Your task to perform on an android device: turn on javascript in the chrome app Image 0: 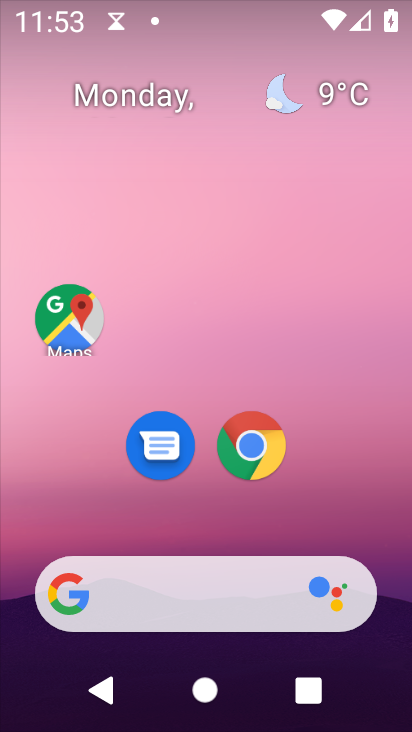
Step 0: drag from (337, 568) to (342, 0)
Your task to perform on an android device: turn on javascript in the chrome app Image 1: 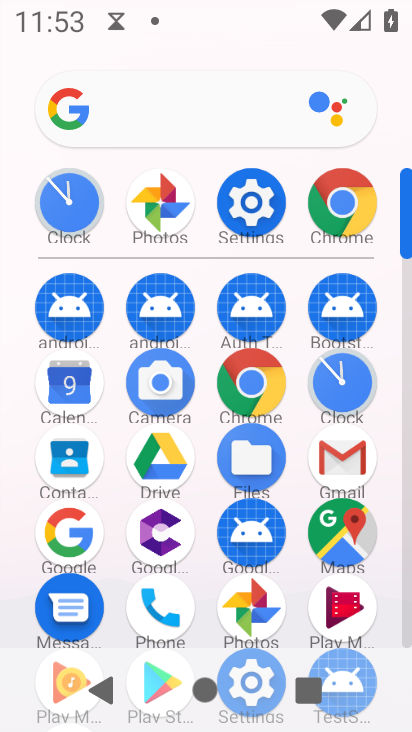
Step 1: click (251, 369)
Your task to perform on an android device: turn on javascript in the chrome app Image 2: 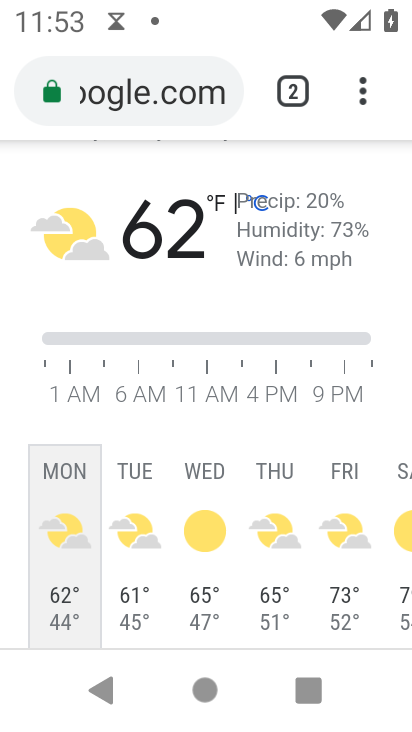
Step 2: click (373, 98)
Your task to perform on an android device: turn on javascript in the chrome app Image 3: 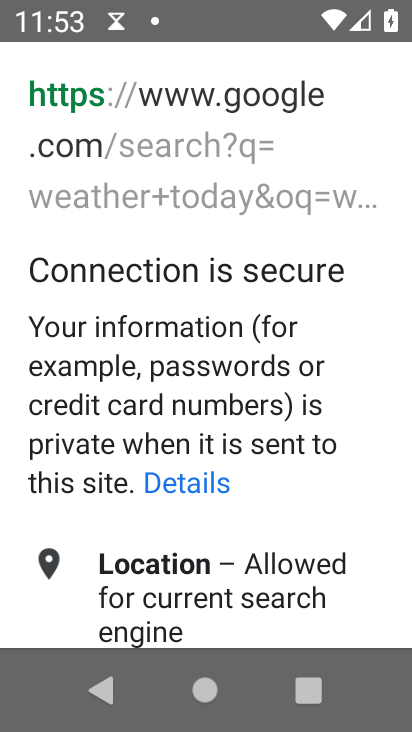
Step 3: click (257, 677)
Your task to perform on an android device: turn on javascript in the chrome app Image 4: 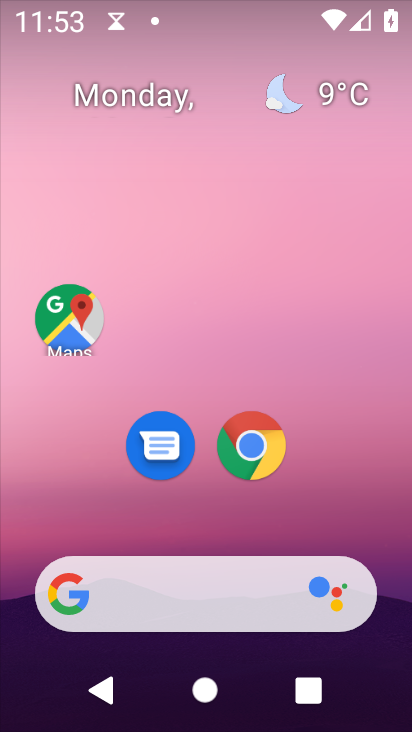
Step 4: drag from (310, 540) to (240, 0)
Your task to perform on an android device: turn on javascript in the chrome app Image 5: 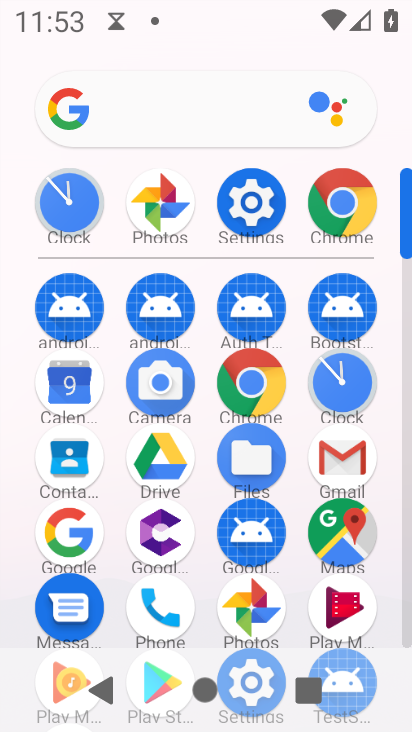
Step 5: click (267, 384)
Your task to perform on an android device: turn on javascript in the chrome app Image 6: 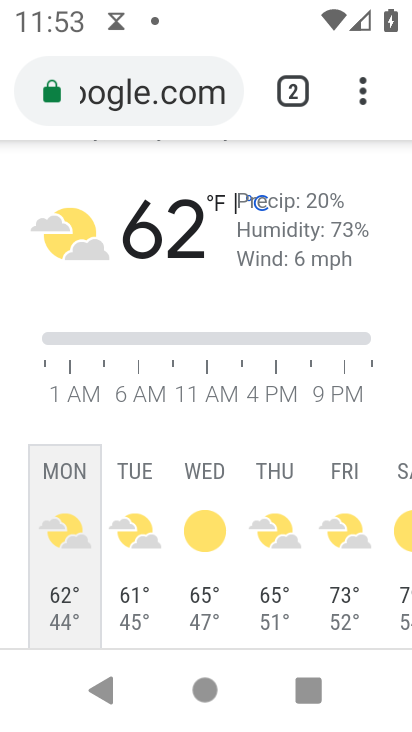
Step 6: drag from (356, 85) to (169, 489)
Your task to perform on an android device: turn on javascript in the chrome app Image 7: 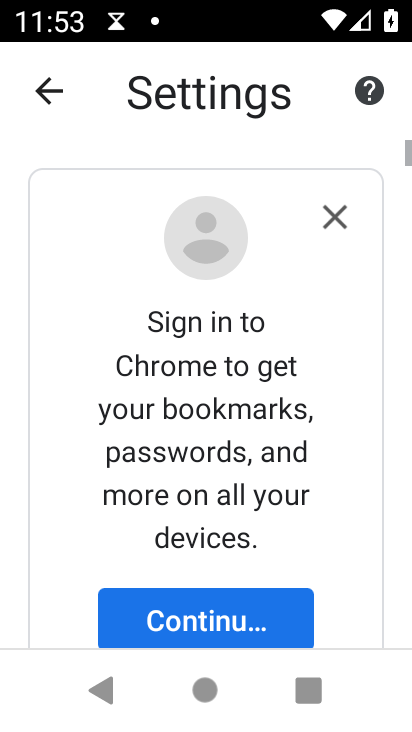
Step 7: drag from (315, 615) to (341, 57)
Your task to perform on an android device: turn on javascript in the chrome app Image 8: 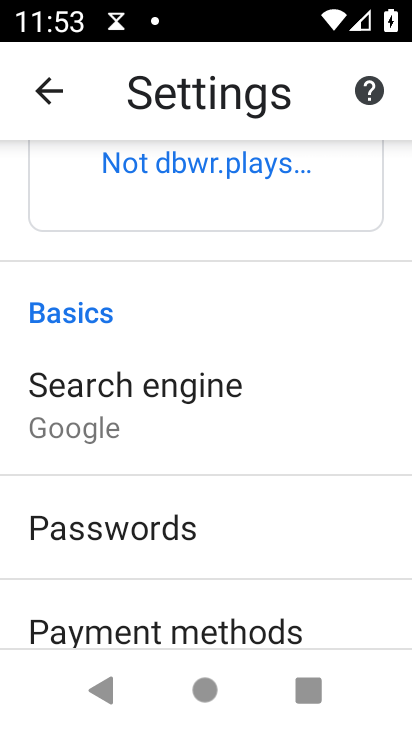
Step 8: drag from (254, 603) to (251, 148)
Your task to perform on an android device: turn on javascript in the chrome app Image 9: 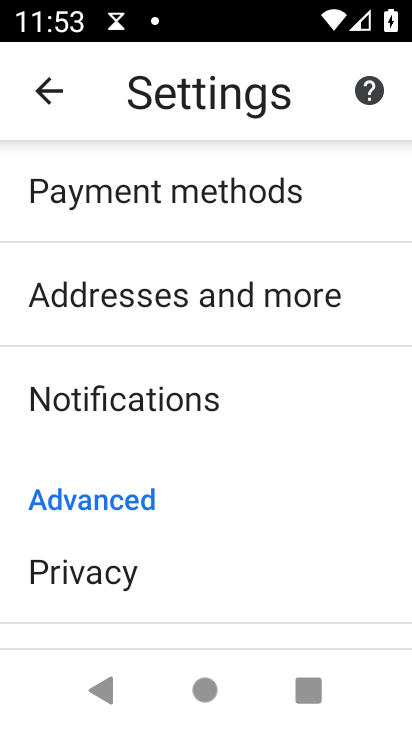
Step 9: drag from (178, 577) to (224, 84)
Your task to perform on an android device: turn on javascript in the chrome app Image 10: 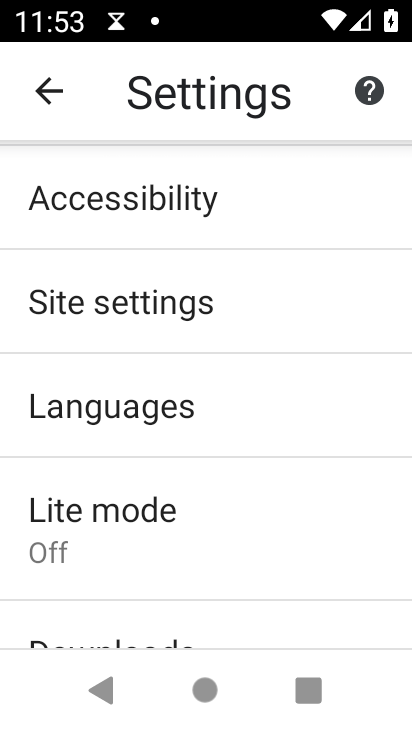
Step 10: click (189, 316)
Your task to perform on an android device: turn on javascript in the chrome app Image 11: 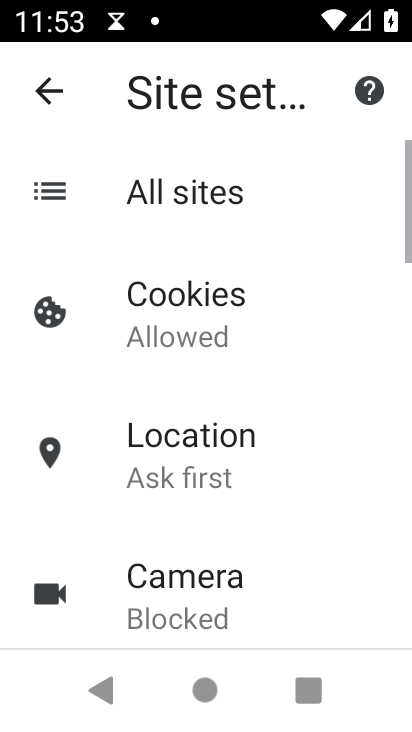
Step 11: drag from (259, 595) to (314, 96)
Your task to perform on an android device: turn on javascript in the chrome app Image 12: 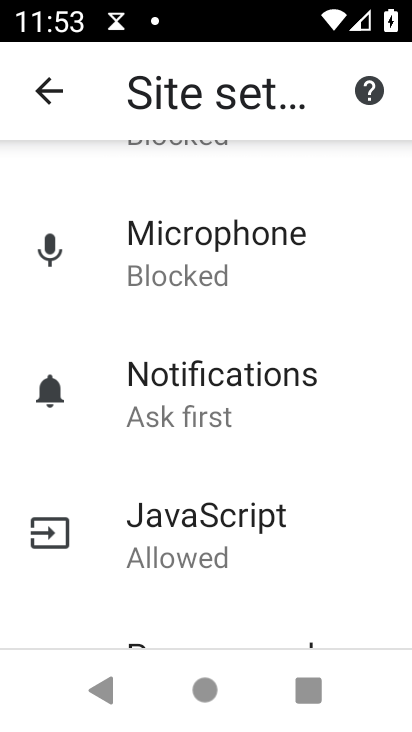
Step 12: click (263, 522)
Your task to perform on an android device: turn on javascript in the chrome app Image 13: 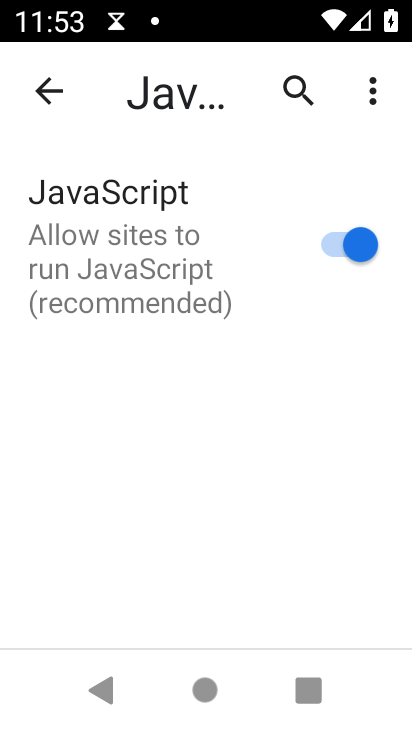
Step 13: task complete